Your task to perform on an android device: see sites visited before in the chrome app Image 0: 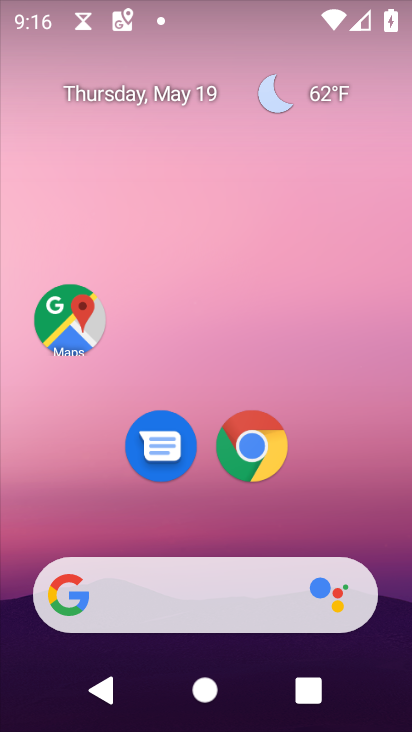
Step 0: click (260, 441)
Your task to perform on an android device: see sites visited before in the chrome app Image 1: 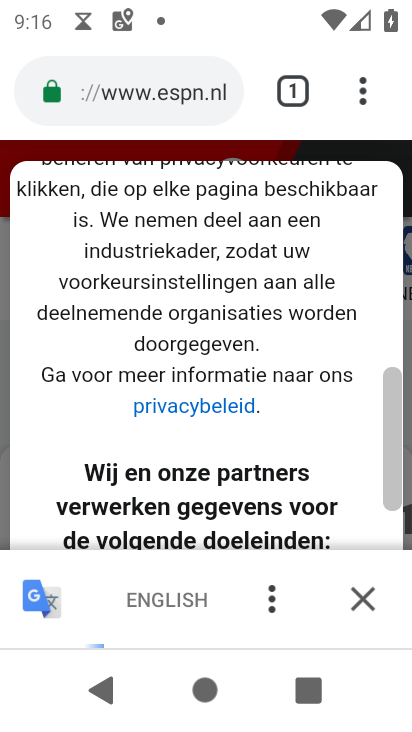
Step 1: click (353, 102)
Your task to perform on an android device: see sites visited before in the chrome app Image 2: 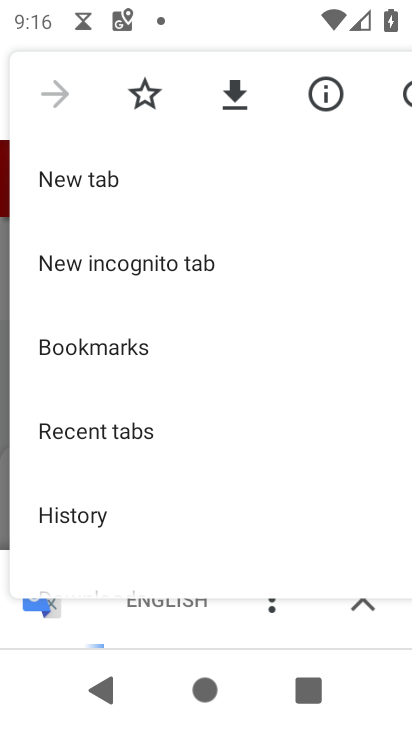
Step 2: click (80, 501)
Your task to perform on an android device: see sites visited before in the chrome app Image 3: 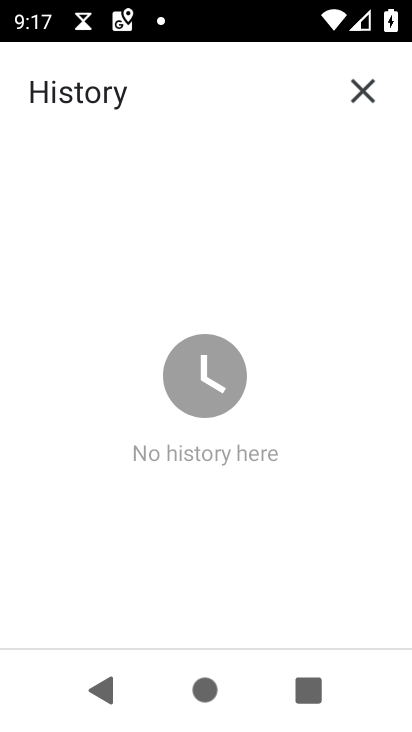
Step 3: task complete